Your task to perform on an android device: open app "Airtel Thanks" Image 0: 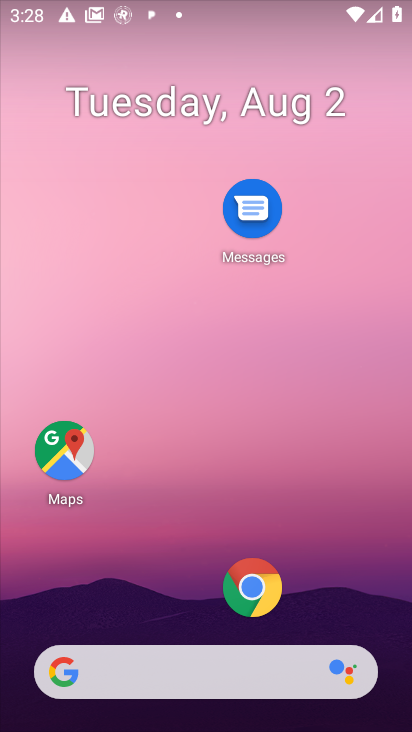
Step 0: drag from (185, 596) to (215, 217)
Your task to perform on an android device: open app "Airtel Thanks" Image 1: 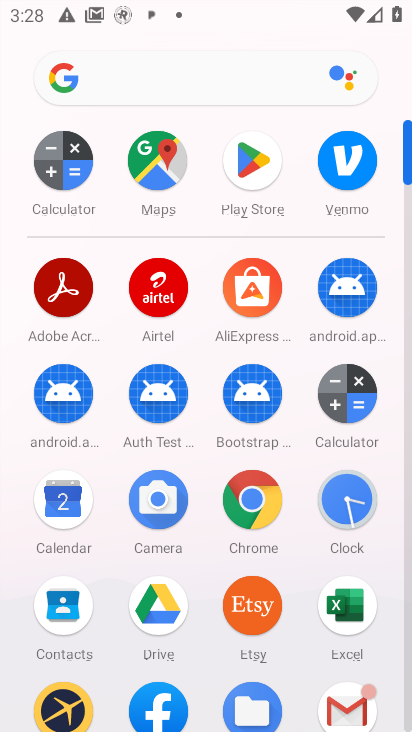
Step 1: click (248, 184)
Your task to perform on an android device: open app "Airtel Thanks" Image 2: 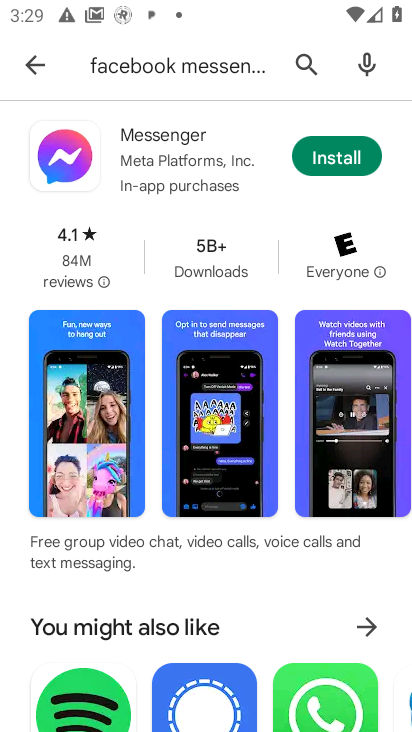
Step 2: click (299, 61)
Your task to perform on an android device: open app "Airtel Thanks" Image 3: 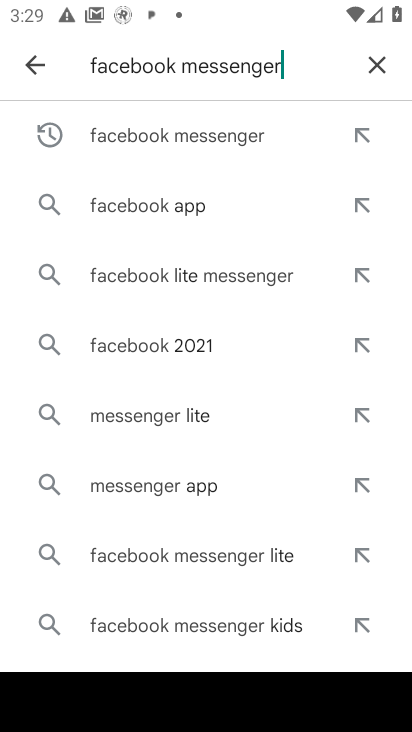
Step 3: click (364, 68)
Your task to perform on an android device: open app "Airtel Thanks" Image 4: 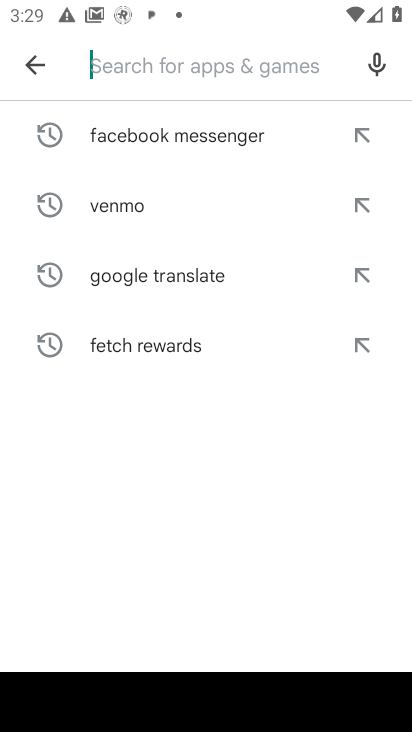
Step 4: type "Airtel Thanks"
Your task to perform on an android device: open app "Airtel Thanks" Image 5: 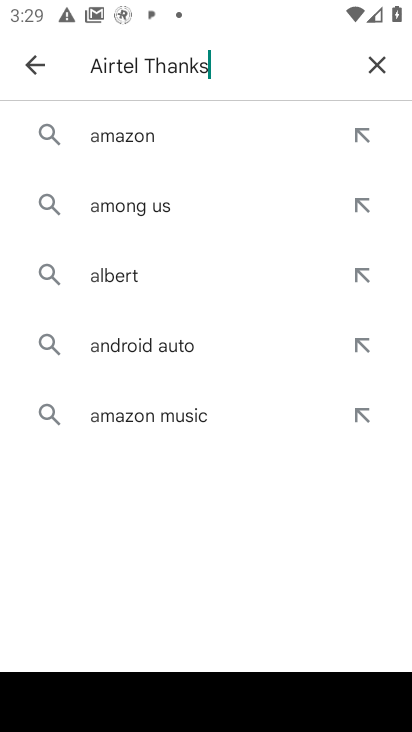
Step 5: type ""
Your task to perform on an android device: open app "Airtel Thanks" Image 6: 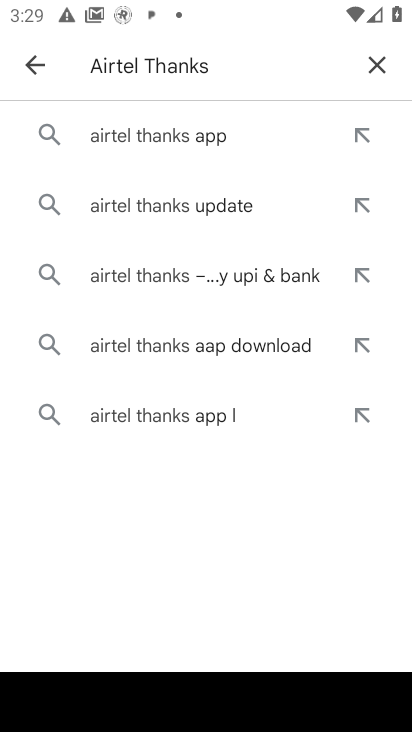
Step 6: click (241, 126)
Your task to perform on an android device: open app "Airtel Thanks" Image 7: 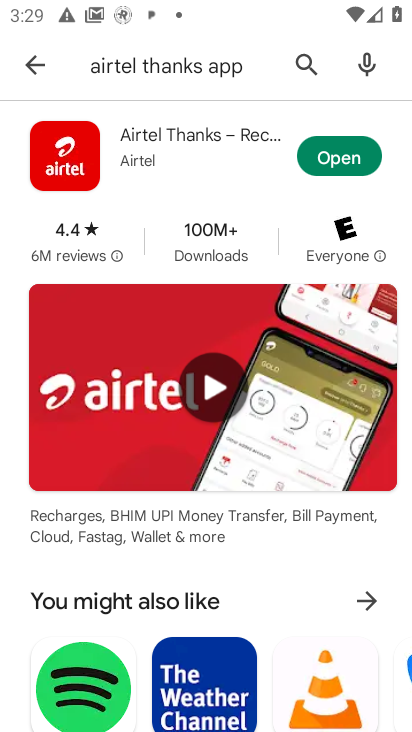
Step 7: click (339, 153)
Your task to perform on an android device: open app "Airtel Thanks" Image 8: 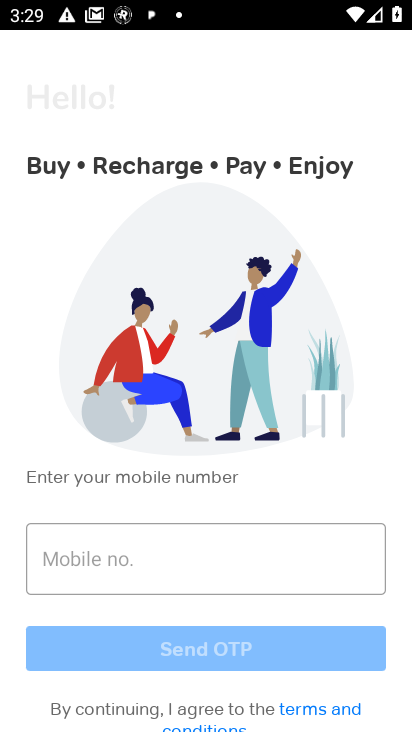
Step 8: task complete